Your task to perform on an android device: Is it going to rain today? Image 0: 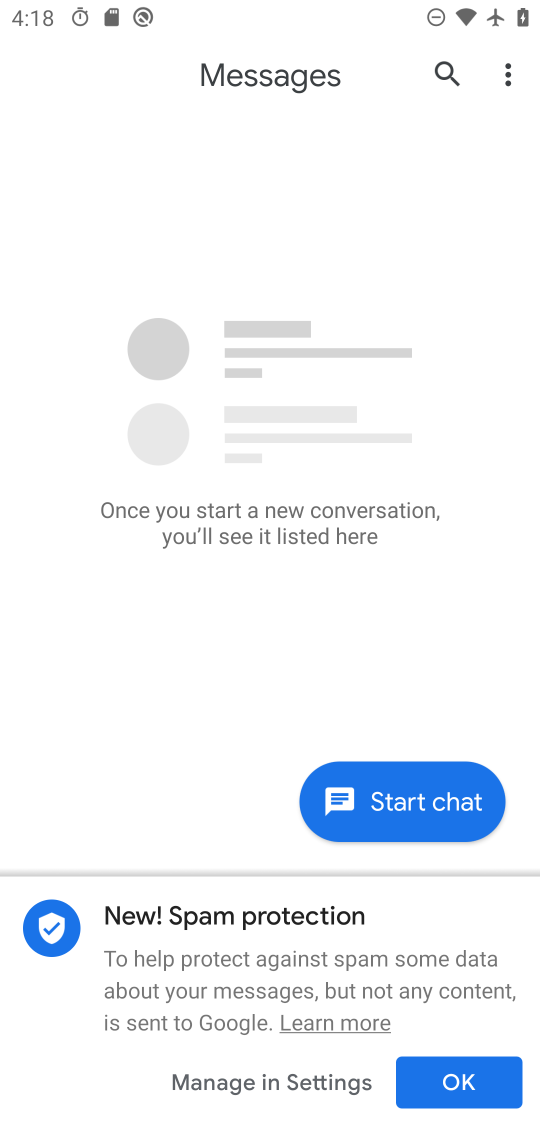
Step 0: press home button
Your task to perform on an android device: Is it going to rain today? Image 1: 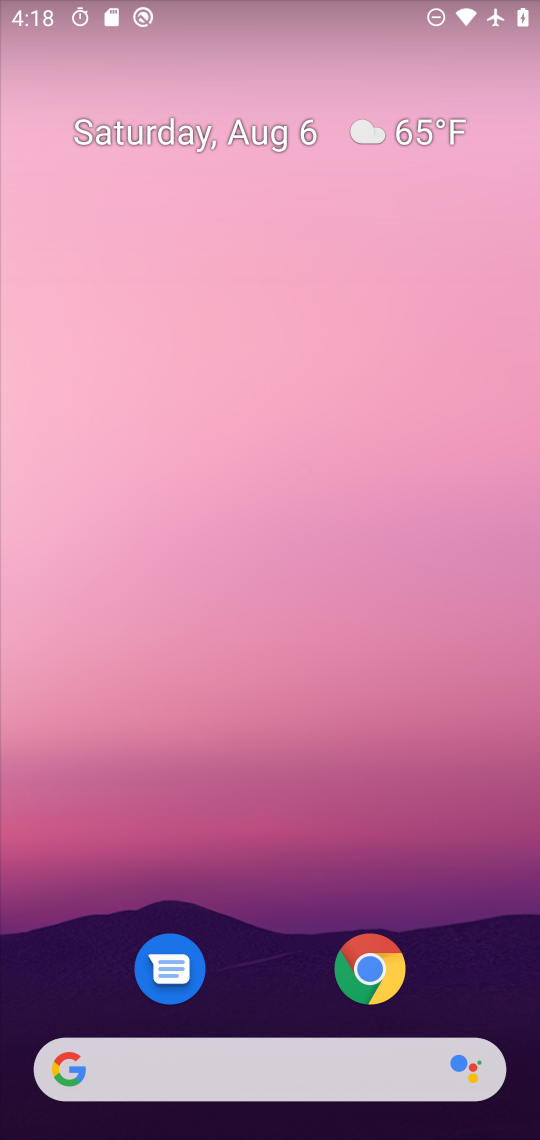
Step 1: click (74, 1076)
Your task to perform on an android device: Is it going to rain today? Image 2: 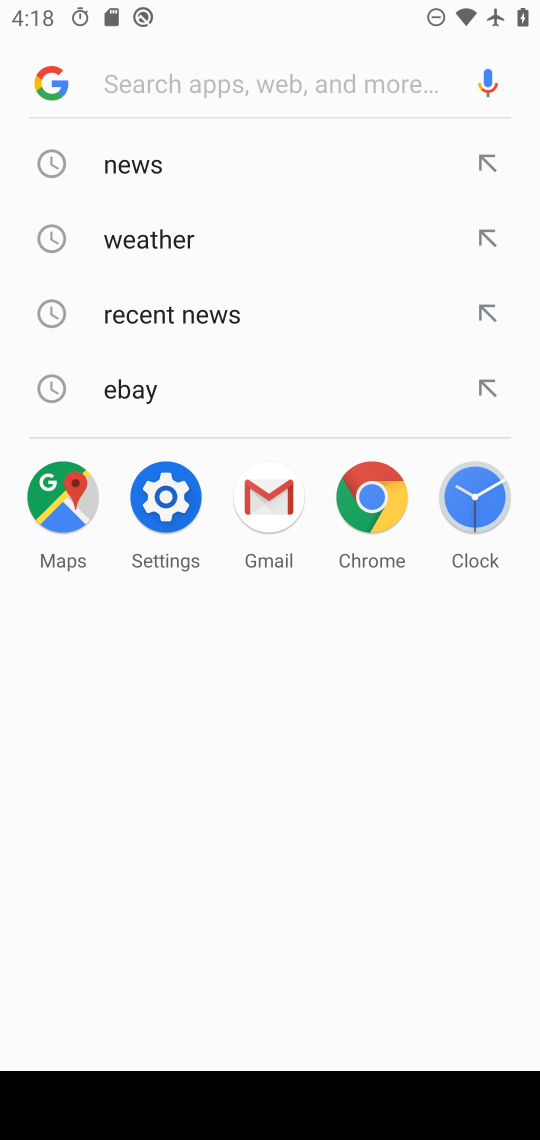
Step 2: type "Is it going to rain today?"
Your task to perform on an android device: Is it going to rain today? Image 3: 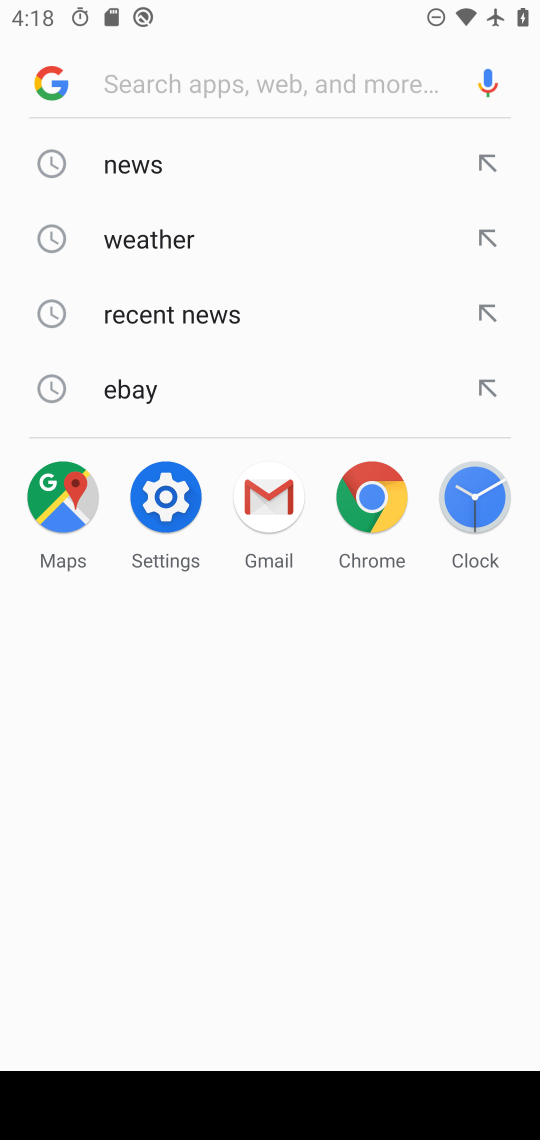
Step 3: click (207, 88)
Your task to perform on an android device: Is it going to rain today? Image 4: 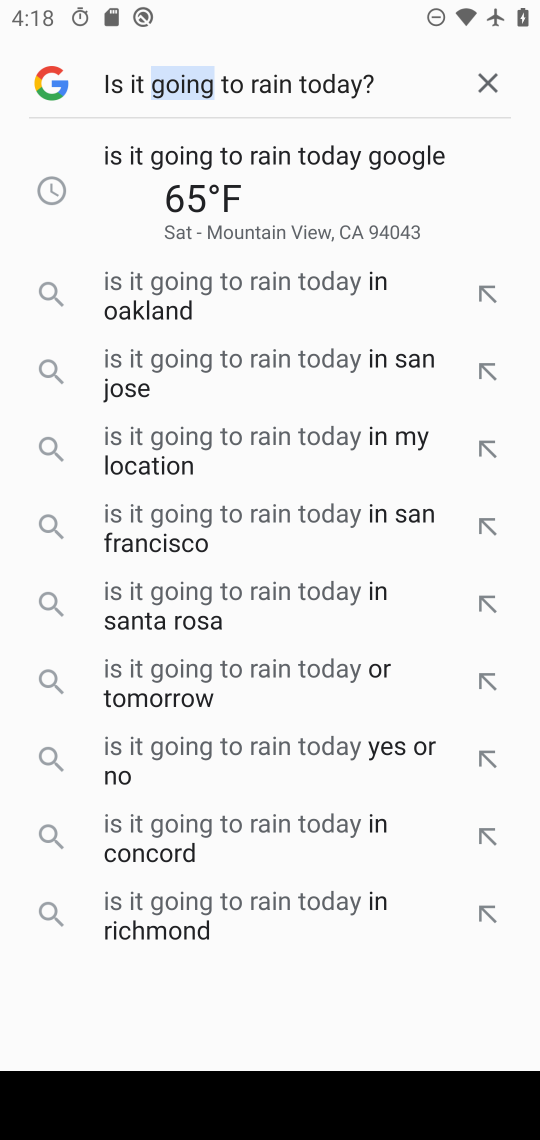
Step 4: click (207, 88)
Your task to perform on an android device: Is it going to rain today? Image 5: 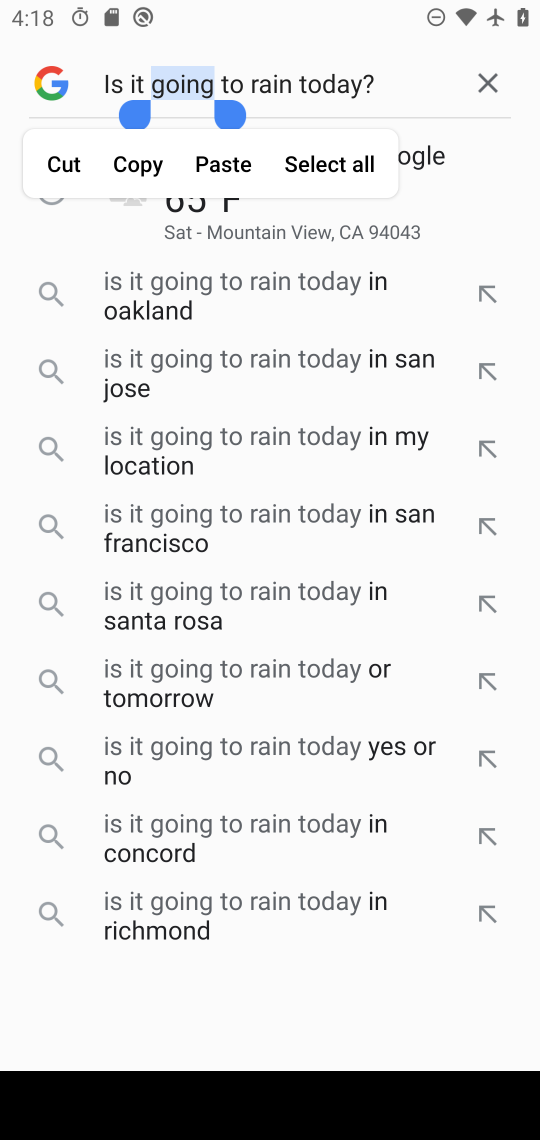
Step 5: press enter
Your task to perform on an android device: Is it going to rain today? Image 6: 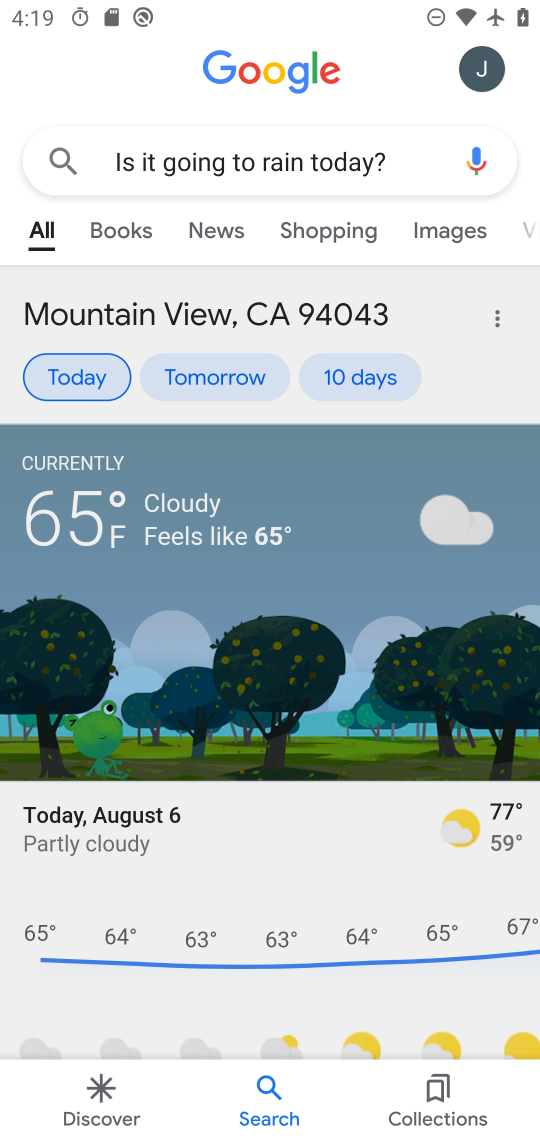
Step 6: task complete